Your task to perform on an android device: Open ESPN.com Image 0: 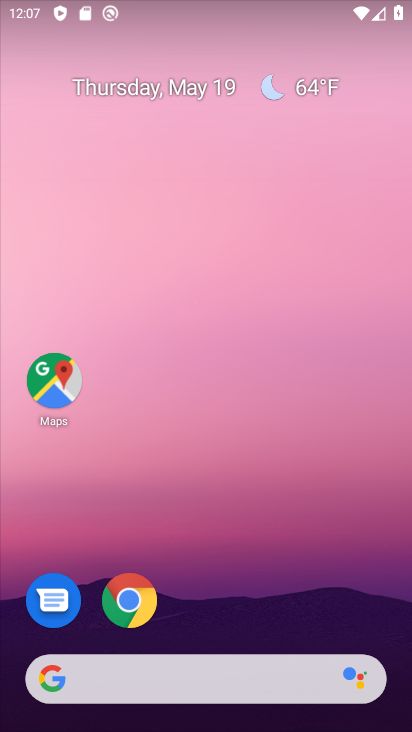
Step 0: drag from (218, 607) to (209, 107)
Your task to perform on an android device: Open ESPN.com Image 1: 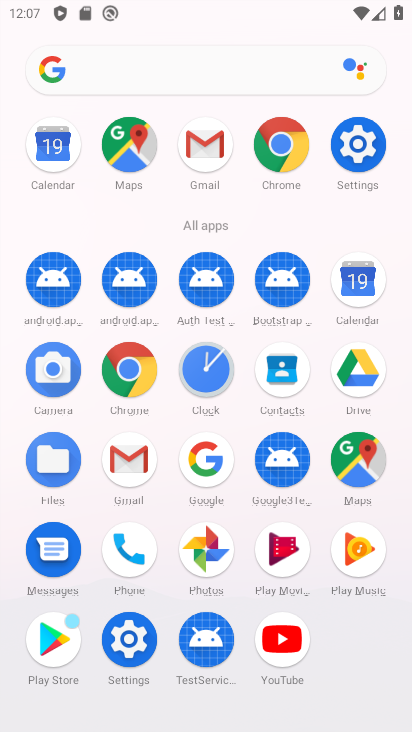
Step 1: click (124, 372)
Your task to perform on an android device: Open ESPN.com Image 2: 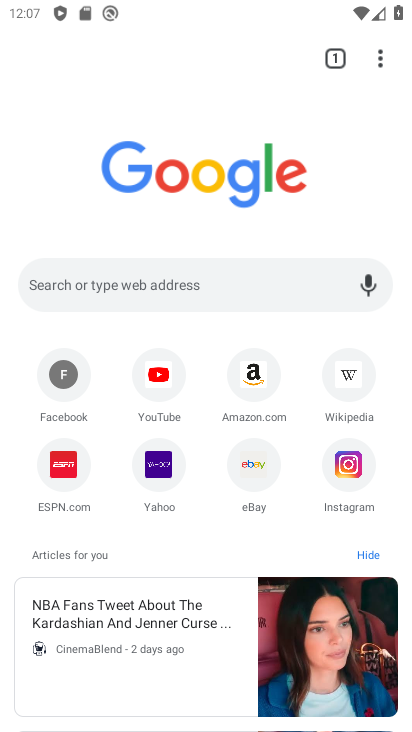
Step 2: click (66, 461)
Your task to perform on an android device: Open ESPN.com Image 3: 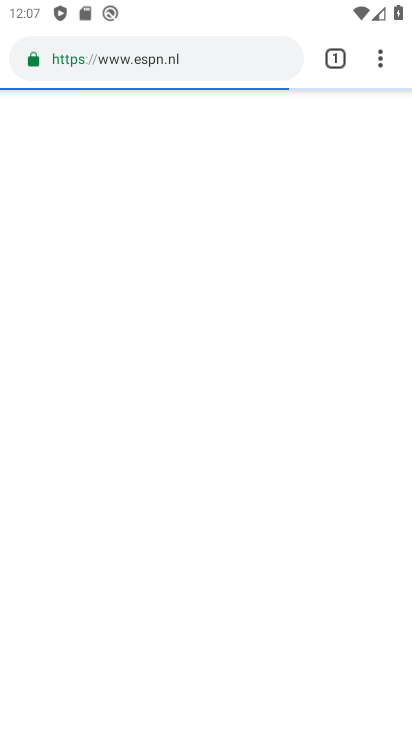
Step 3: task complete